Your task to perform on an android device: change the clock display to show seconds Image 0: 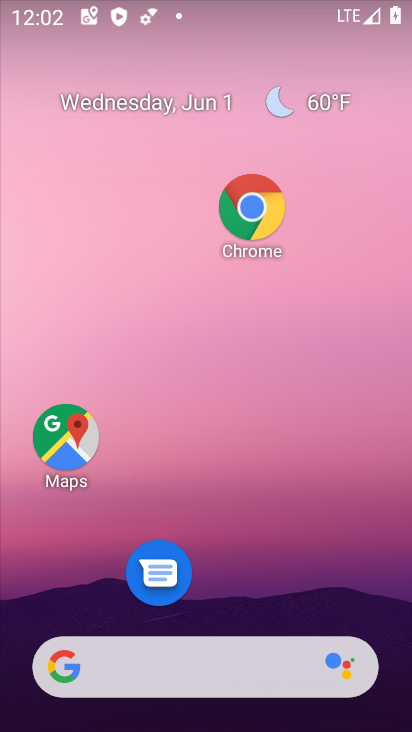
Step 0: drag from (207, 609) to (212, 248)
Your task to perform on an android device: change the clock display to show seconds Image 1: 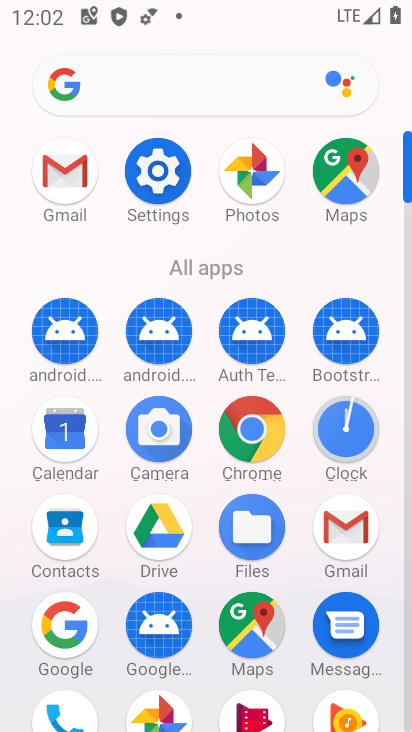
Step 1: click (335, 408)
Your task to perform on an android device: change the clock display to show seconds Image 2: 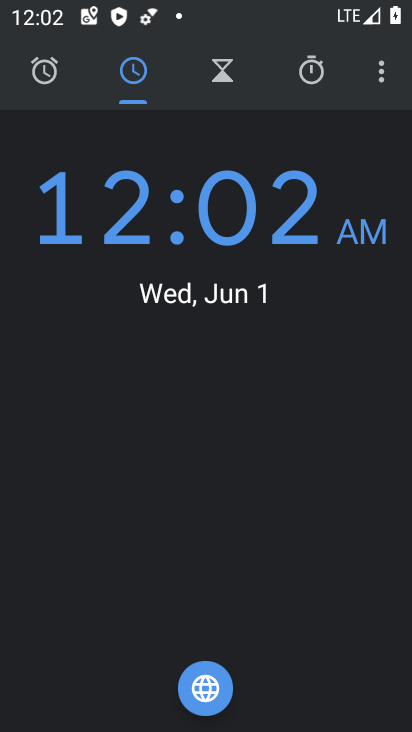
Step 2: click (365, 72)
Your task to perform on an android device: change the clock display to show seconds Image 3: 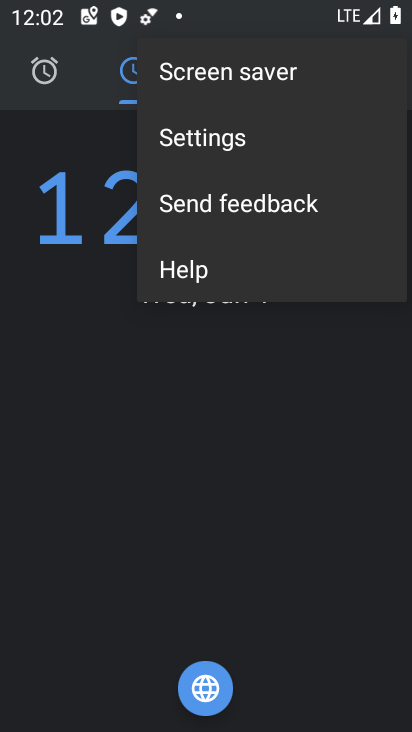
Step 3: click (261, 131)
Your task to perform on an android device: change the clock display to show seconds Image 4: 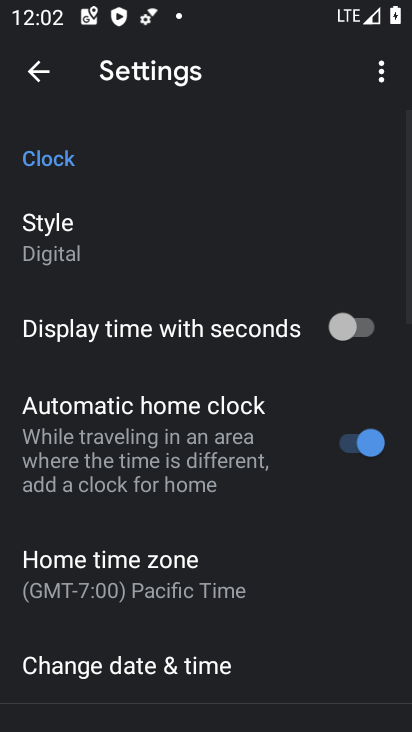
Step 4: click (368, 322)
Your task to perform on an android device: change the clock display to show seconds Image 5: 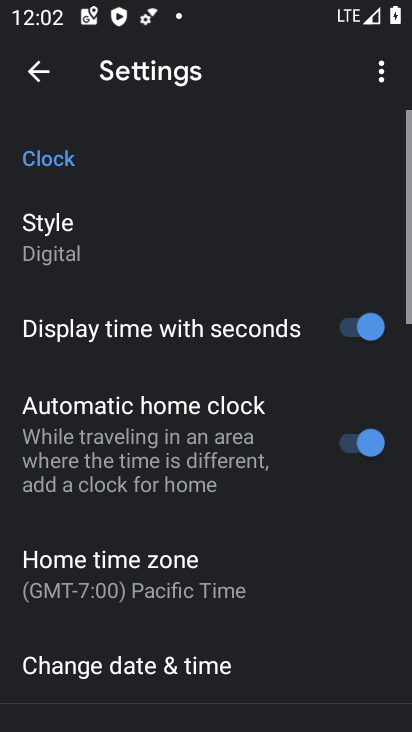
Step 5: task complete